Your task to perform on an android device: Open display settings Image 0: 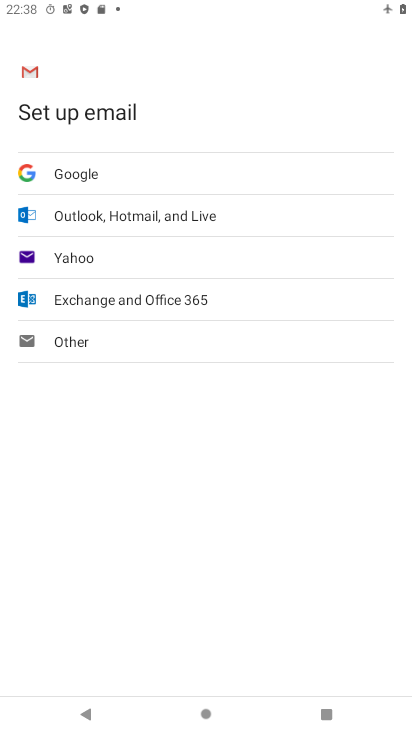
Step 0: press home button
Your task to perform on an android device: Open display settings Image 1: 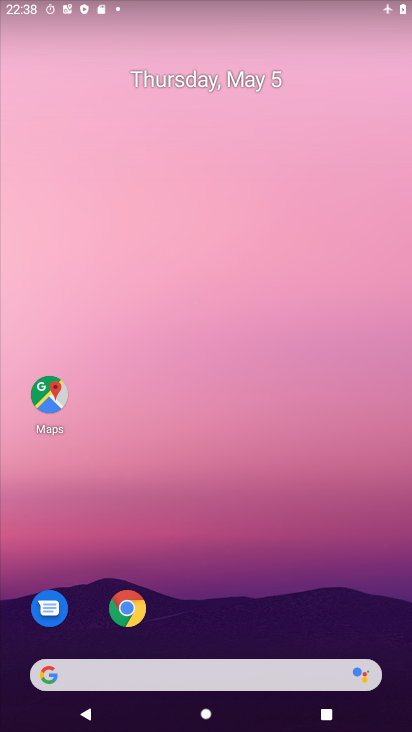
Step 1: drag from (202, 686) to (263, 6)
Your task to perform on an android device: Open display settings Image 2: 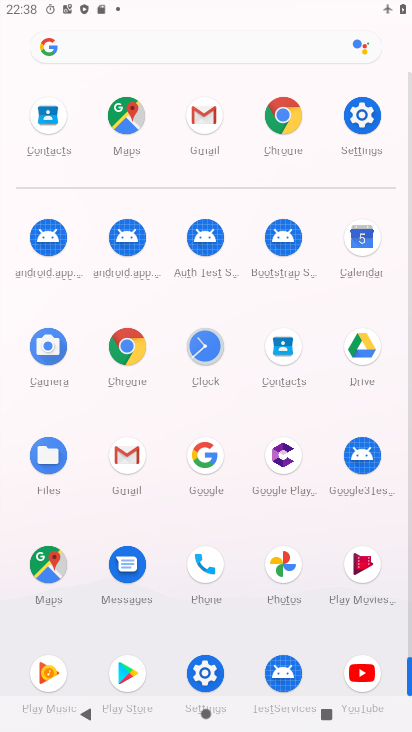
Step 2: click (354, 120)
Your task to perform on an android device: Open display settings Image 3: 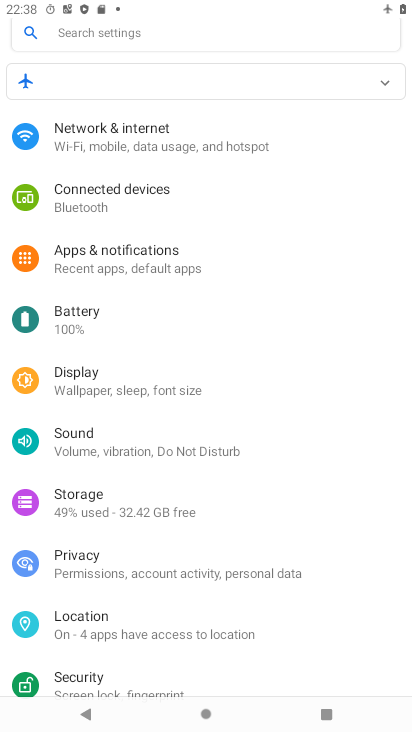
Step 3: click (159, 387)
Your task to perform on an android device: Open display settings Image 4: 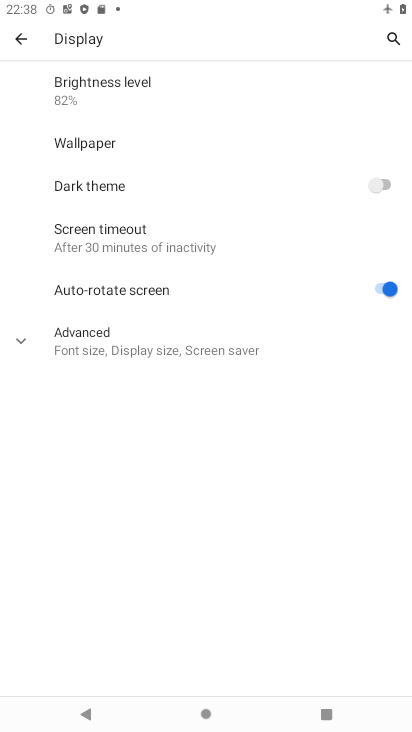
Step 4: task complete